Your task to perform on an android device: Open location settings Image 0: 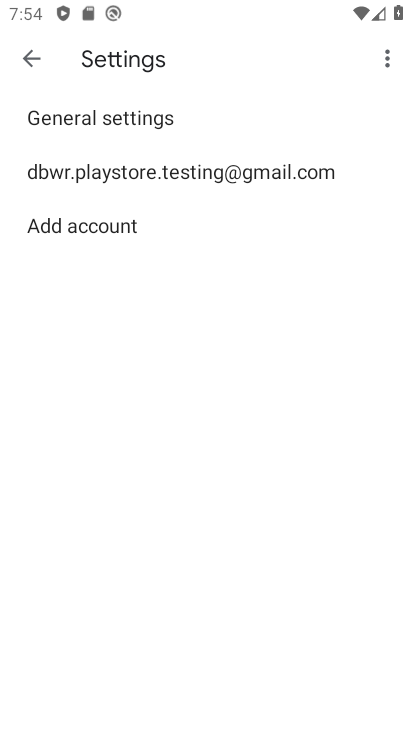
Step 0: press home button
Your task to perform on an android device: Open location settings Image 1: 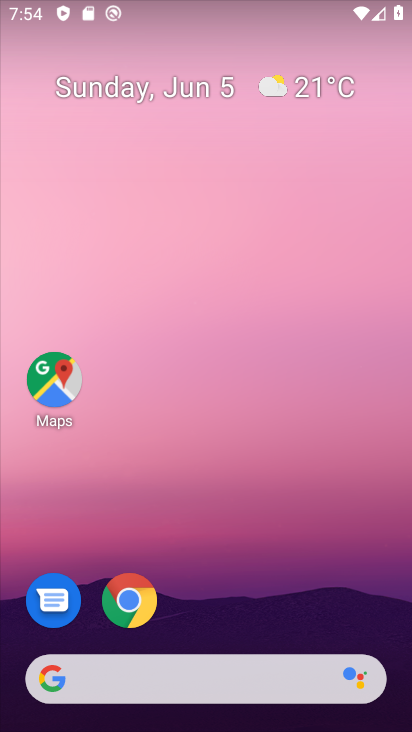
Step 1: drag from (295, 559) to (333, 19)
Your task to perform on an android device: Open location settings Image 2: 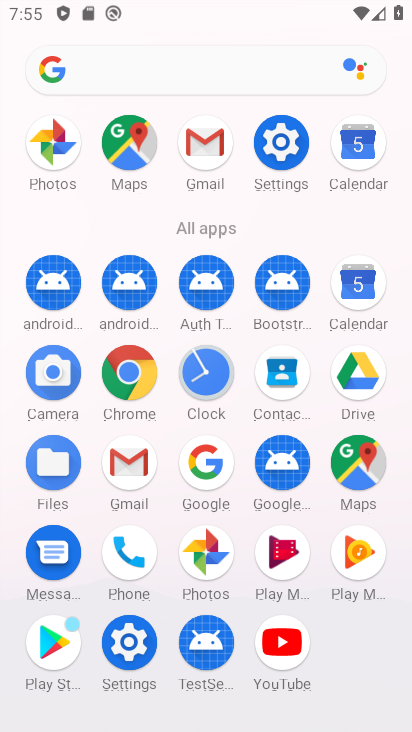
Step 2: click (130, 647)
Your task to perform on an android device: Open location settings Image 3: 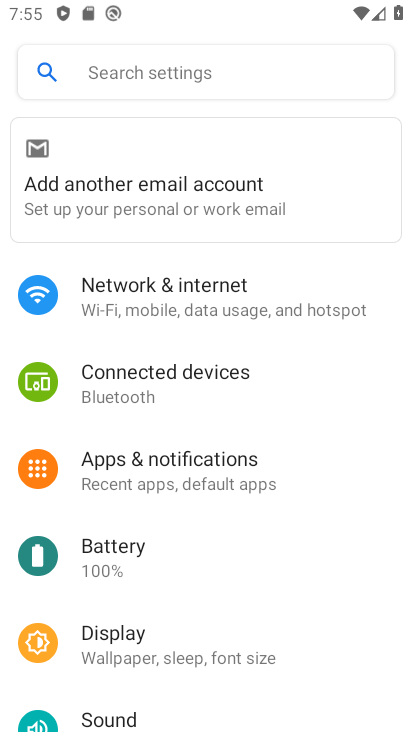
Step 3: drag from (212, 663) to (268, 188)
Your task to perform on an android device: Open location settings Image 4: 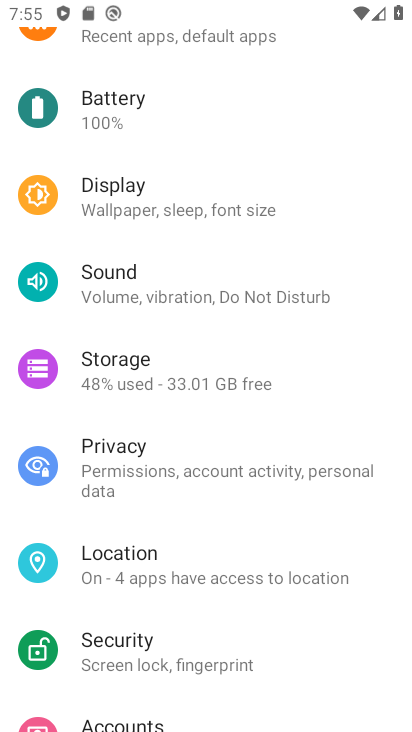
Step 4: click (209, 577)
Your task to perform on an android device: Open location settings Image 5: 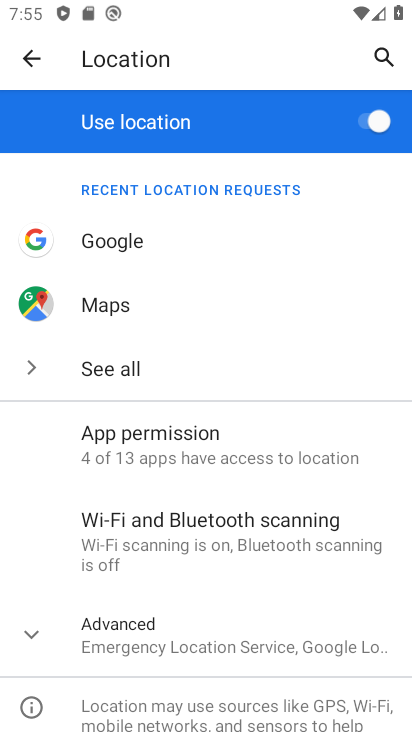
Step 5: task complete